Your task to perform on an android device: Open the stopwatch Image 0: 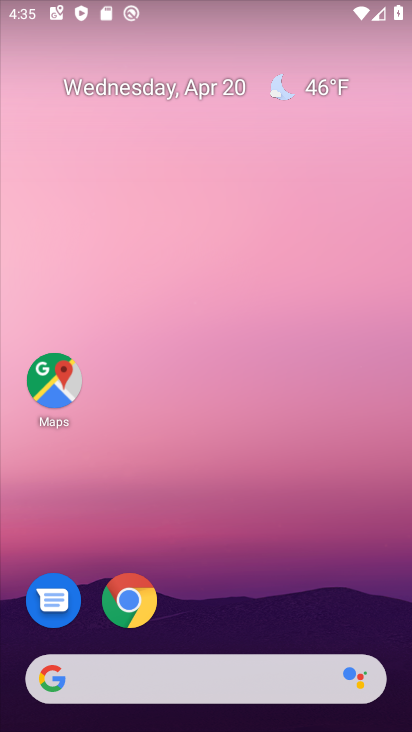
Step 0: drag from (219, 614) to (210, 99)
Your task to perform on an android device: Open the stopwatch Image 1: 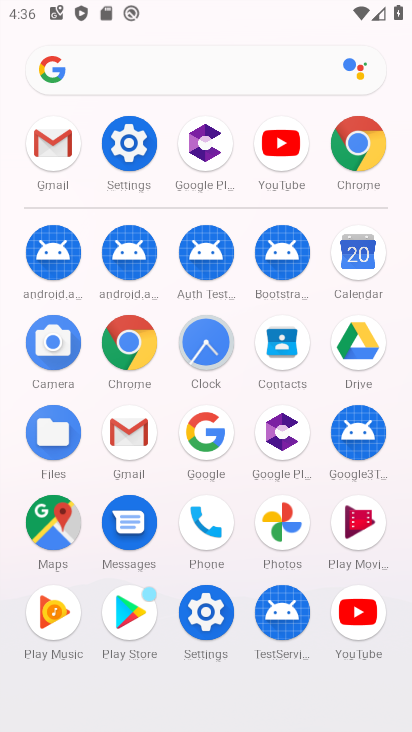
Step 1: click (205, 337)
Your task to perform on an android device: Open the stopwatch Image 2: 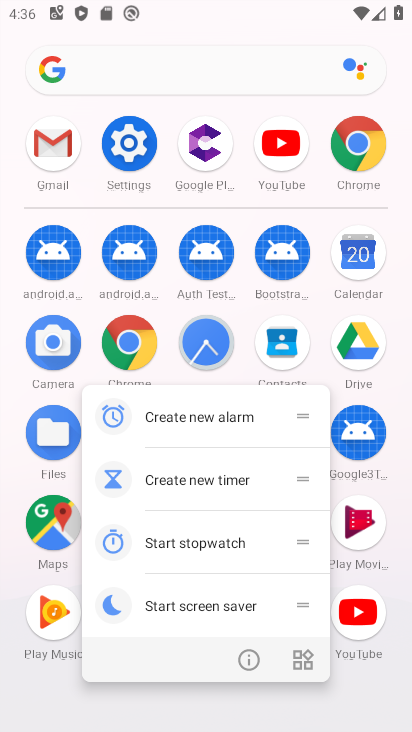
Step 2: click (205, 337)
Your task to perform on an android device: Open the stopwatch Image 3: 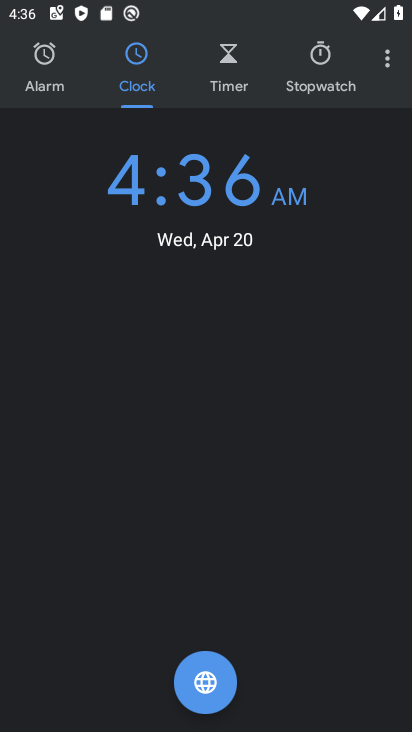
Step 3: click (319, 56)
Your task to perform on an android device: Open the stopwatch Image 4: 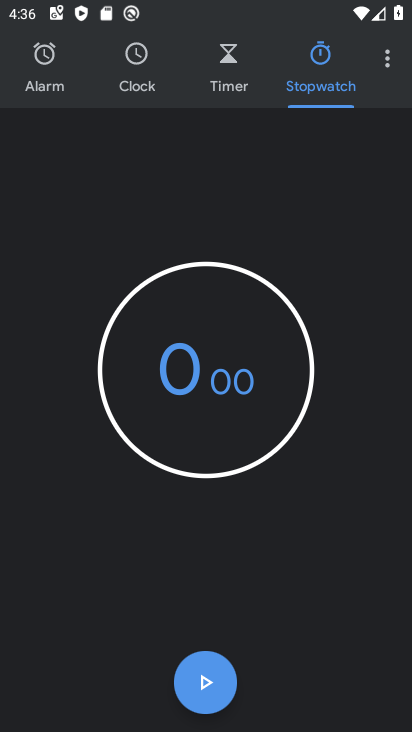
Step 4: click (202, 684)
Your task to perform on an android device: Open the stopwatch Image 5: 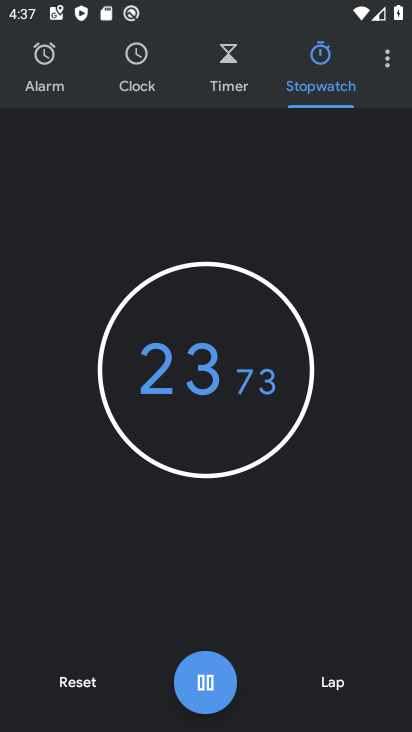
Step 5: click (82, 675)
Your task to perform on an android device: Open the stopwatch Image 6: 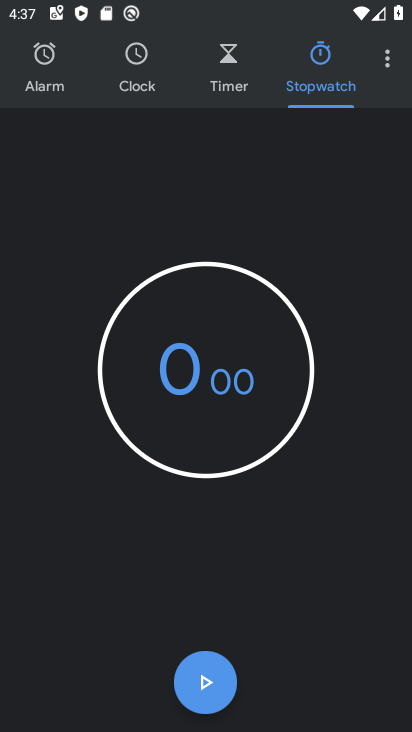
Step 6: task complete